Your task to perform on an android device: turn notification dots on Image 0: 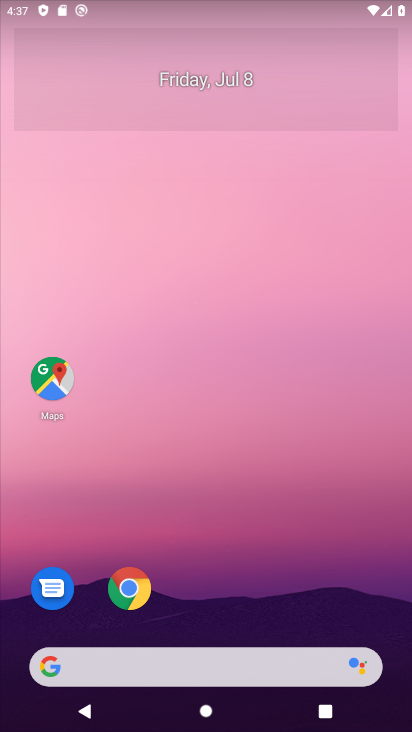
Step 0: drag from (249, 365) to (229, 207)
Your task to perform on an android device: turn notification dots on Image 1: 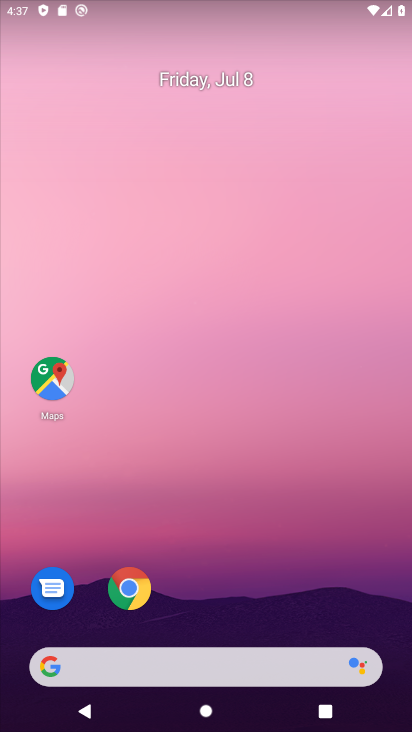
Step 1: drag from (260, 523) to (285, 112)
Your task to perform on an android device: turn notification dots on Image 2: 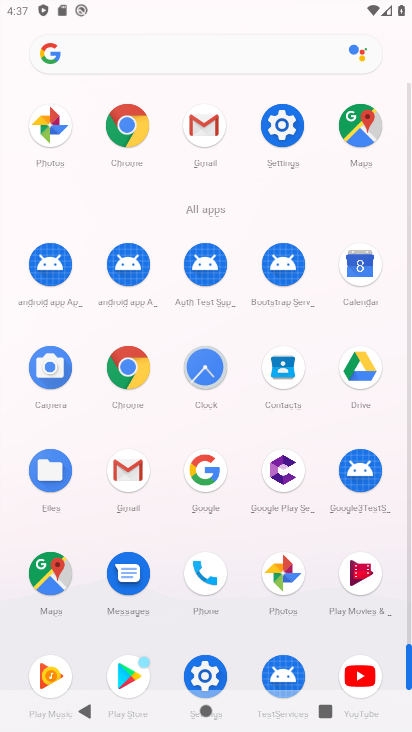
Step 2: click (216, 674)
Your task to perform on an android device: turn notification dots on Image 3: 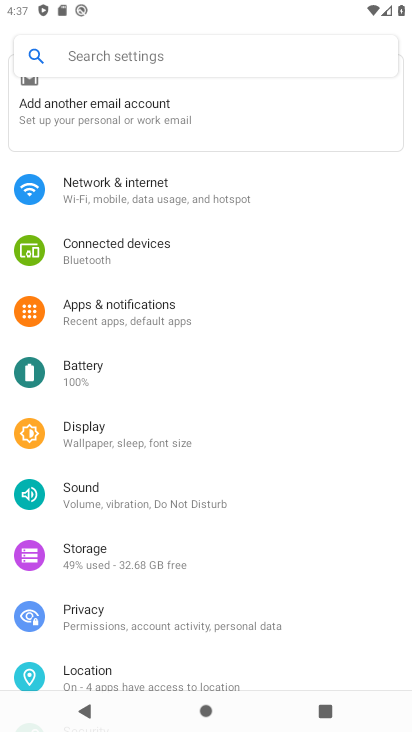
Step 3: click (174, 302)
Your task to perform on an android device: turn notification dots on Image 4: 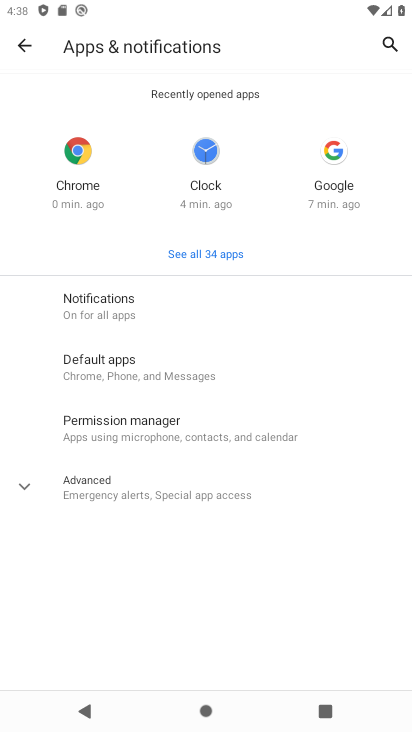
Step 4: click (147, 311)
Your task to perform on an android device: turn notification dots on Image 5: 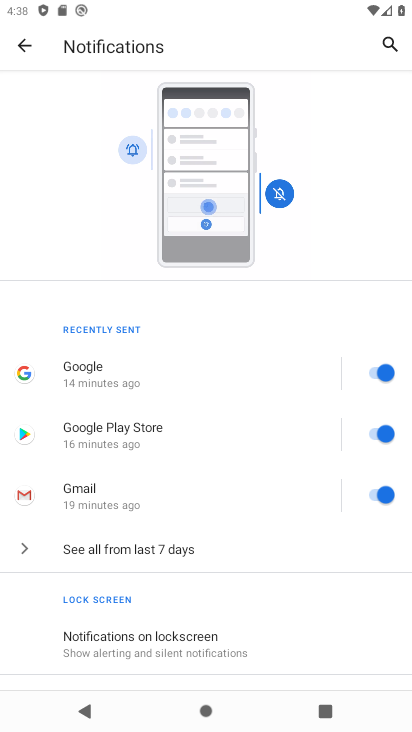
Step 5: drag from (207, 629) to (240, 304)
Your task to perform on an android device: turn notification dots on Image 6: 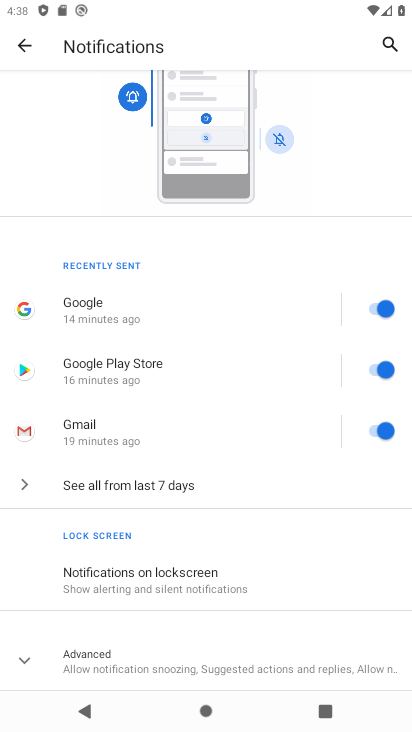
Step 6: click (28, 41)
Your task to perform on an android device: turn notification dots on Image 7: 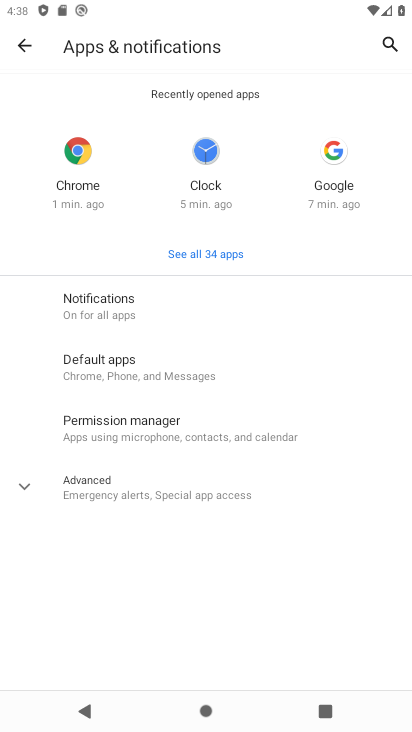
Step 7: click (22, 44)
Your task to perform on an android device: turn notification dots on Image 8: 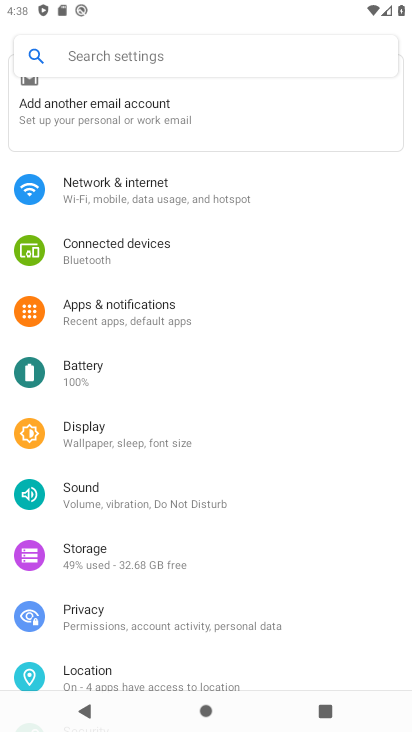
Step 8: click (59, 58)
Your task to perform on an android device: turn notification dots on Image 9: 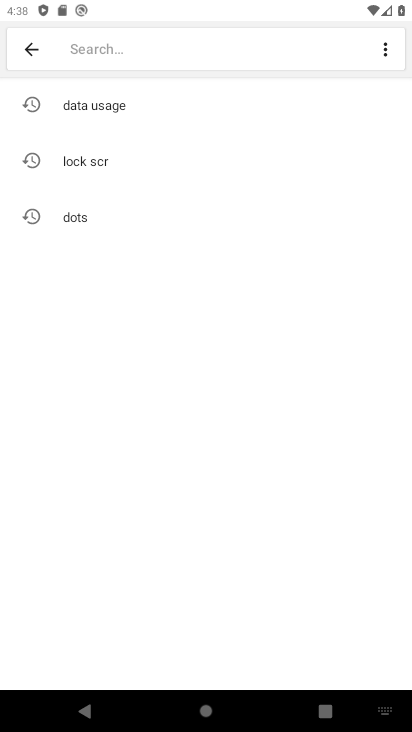
Step 9: type "dots"
Your task to perform on an android device: turn notification dots on Image 10: 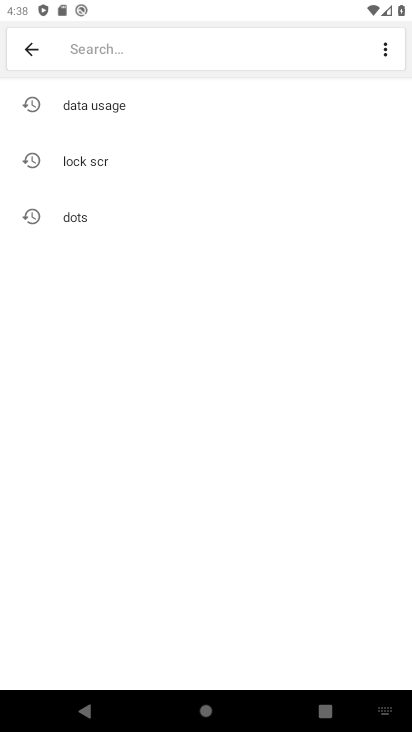
Step 10: click (228, 209)
Your task to perform on an android device: turn notification dots on Image 11: 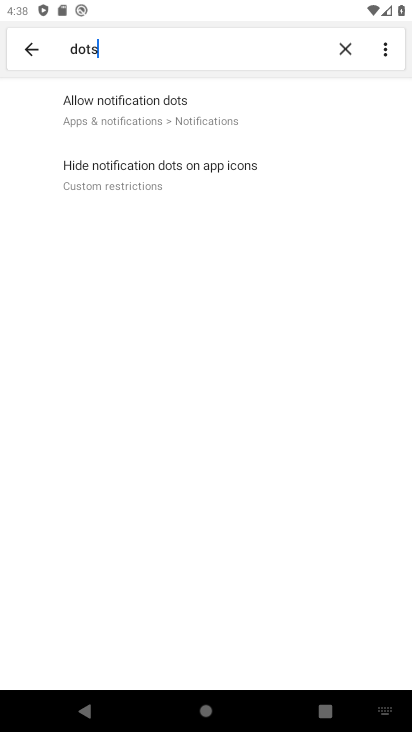
Step 11: click (244, 105)
Your task to perform on an android device: turn notification dots on Image 12: 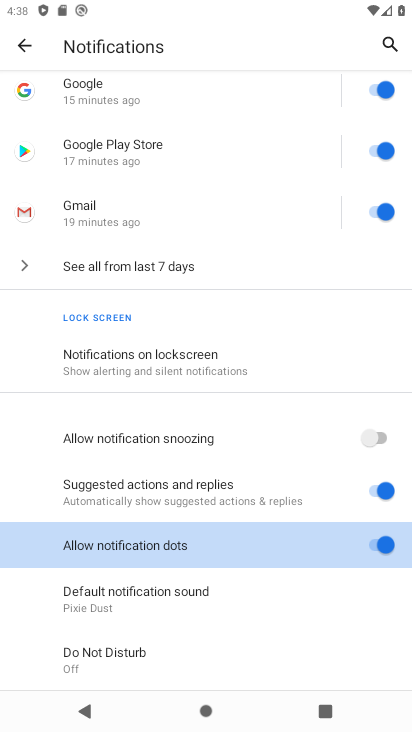
Step 12: click (374, 545)
Your task to perform on an android device: turn notification dots on Image 13: 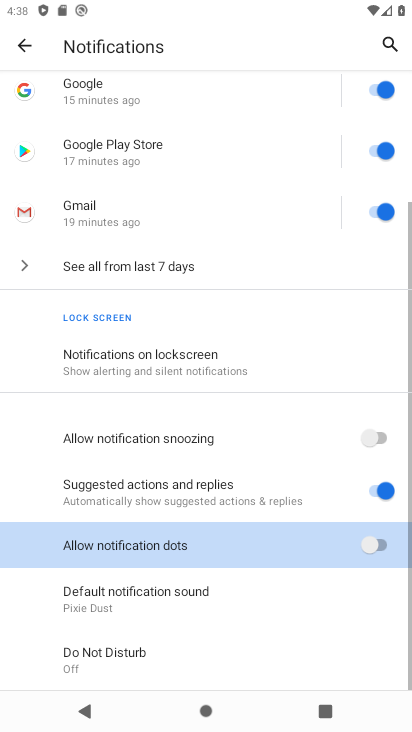
Step 13: click (378, 548)
Your task to perform on an android device: turn notification dots on Image 14: 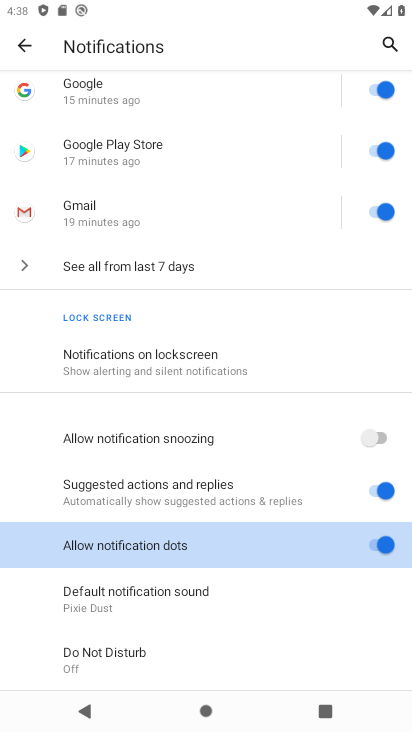
Step 14: task complete